Your task to perform on an android device: open sync settings in chrome Image 0: 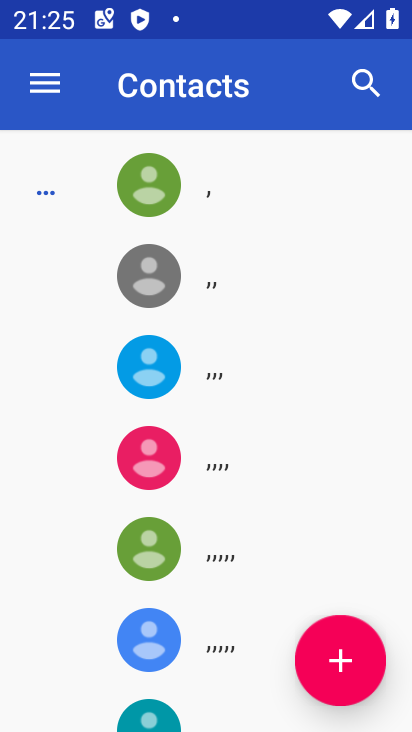
Step 0: press home button
Your task to perform on an android device: open sync settings in chrome Image 1: 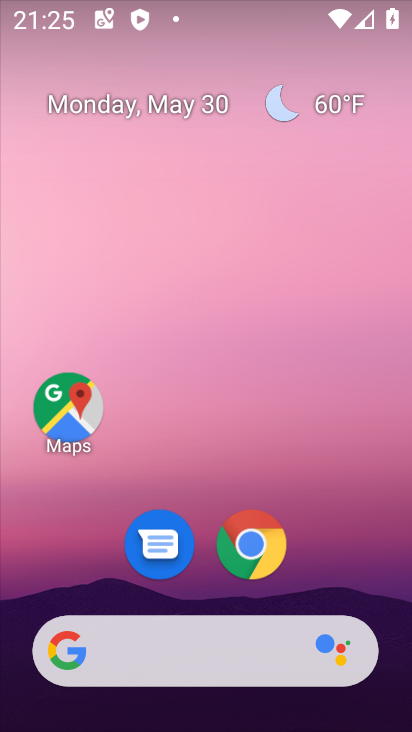
Step 1: click (253, 540)
Your task to perform on an android device: open sync settings in chrome Image 2: 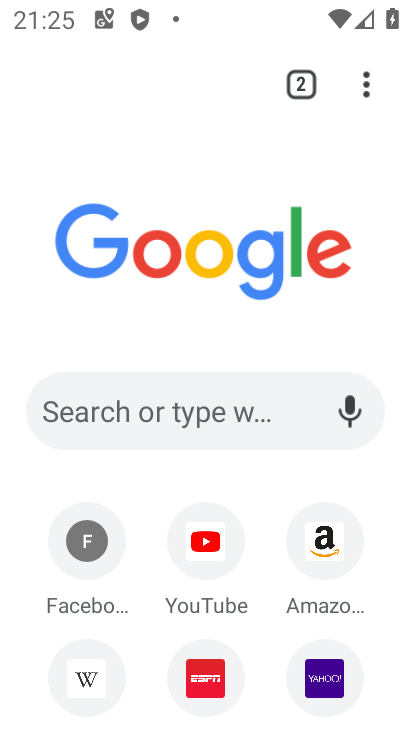
Step 2: click (367, 82)
Your task to perform on an android device: open sync settings in chrome Image 3: 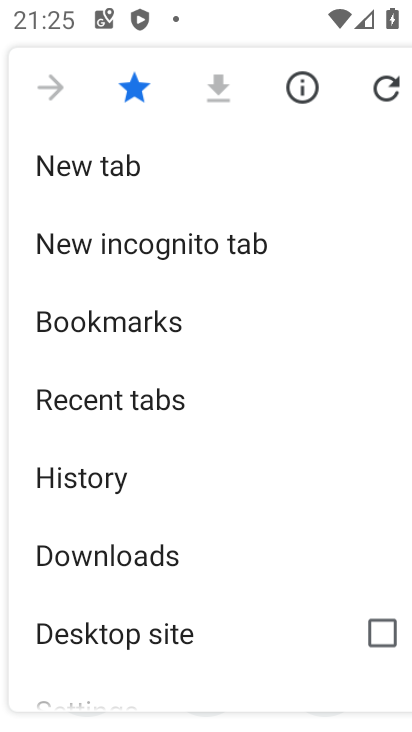
Step 3: drag from (190, 463) to (210, 372)
Your task to perform on an android device: open sync settings in chrome Image 4: 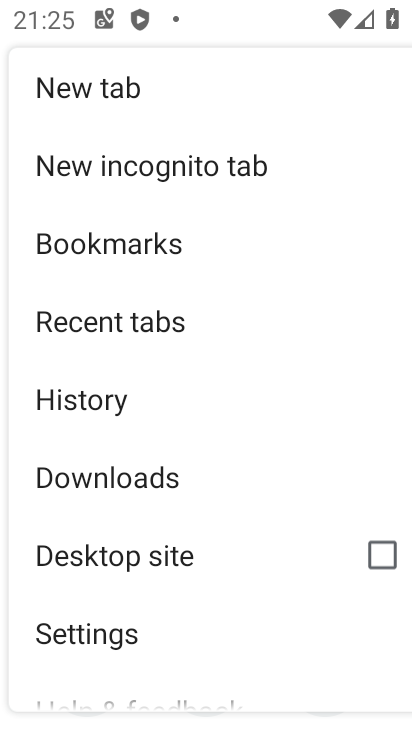
Step 4: drag from (160, 581) to (196, 474)
Your task to perform on an android device: open sync settings in chrome Image 5: 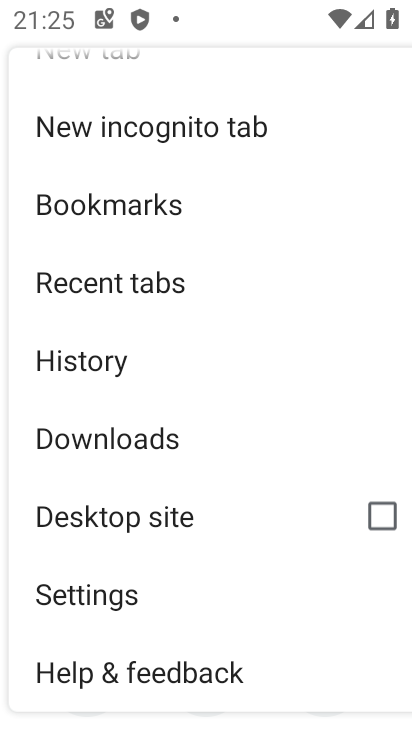
Step 5: click (96, 592)
Your task to perform on an android device: open sync settings in chrome Image 6: 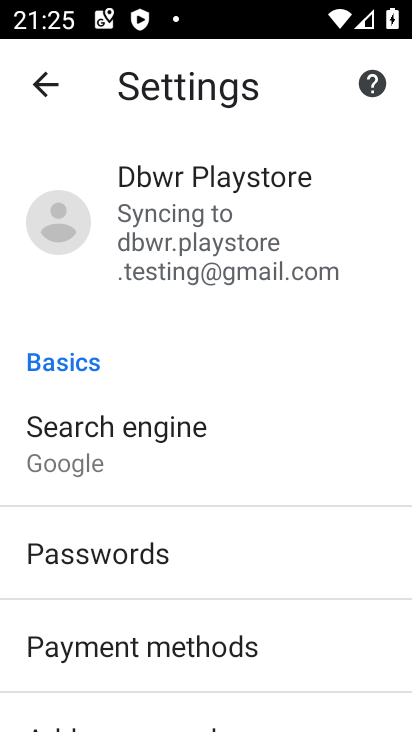
Step 6: drag from (158, 612) to (174, 531)
Your task to perform on an android device: open sync settings in chrome Image 7: 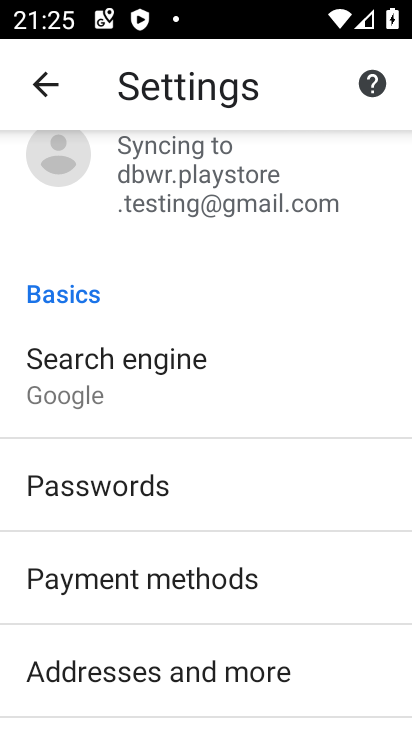
Step 7: drag from (145, 640) to (194, 544)
Your task to perform on an android device: open sync settings in chrome Image 8: 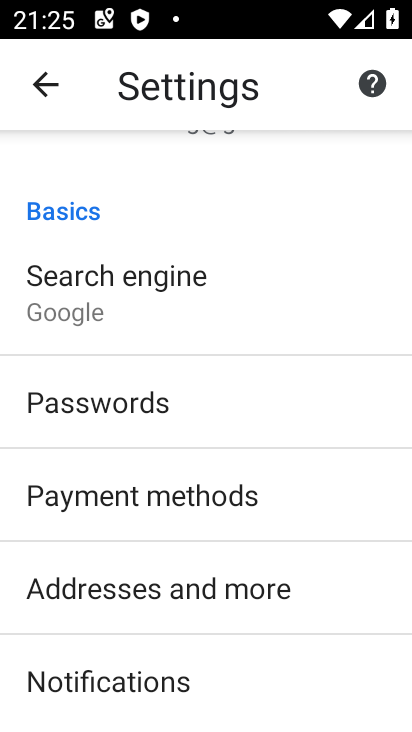
Step 8: drag from (160, 617) to (207, 532)
Your task to perform on an android device: open sync settings in chrome Image 9: 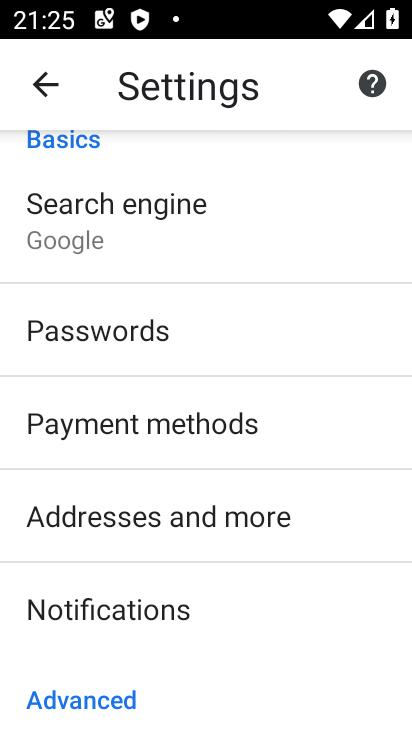
Step 9: drag from (205, 621) to (219, 530)
Your task to perform on an android device: open sync settings in chrome Image 10: 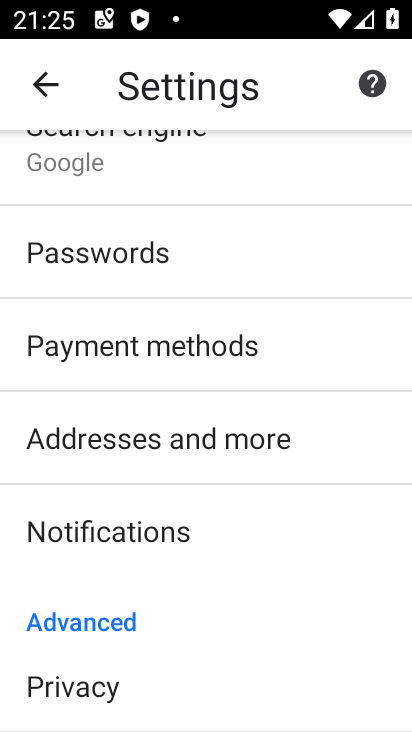
Step 10: drag from (170, 636) to (214, 549)
Your task to perform on an android device: open sync settings in chrome Image 11: 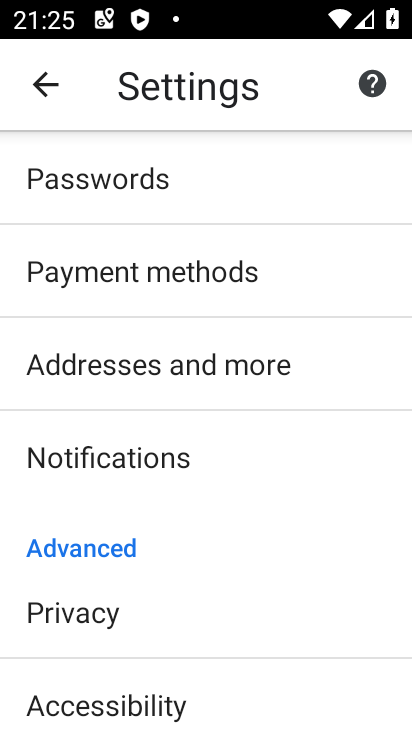
Step 11: drag from (200, 659) to (220, 566)
Your task to perform on an android device: open sync settings in chrome Image 12: 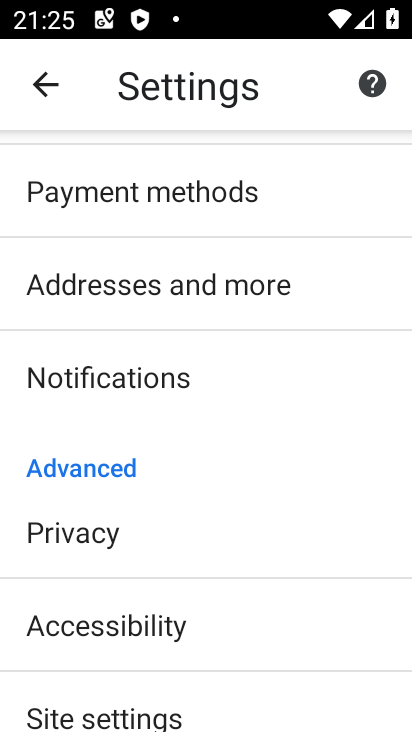
Step 12: drag from (225, 659) to (275, 561)
Your task to perform on an android device: open sync settings in chrome Image 13: 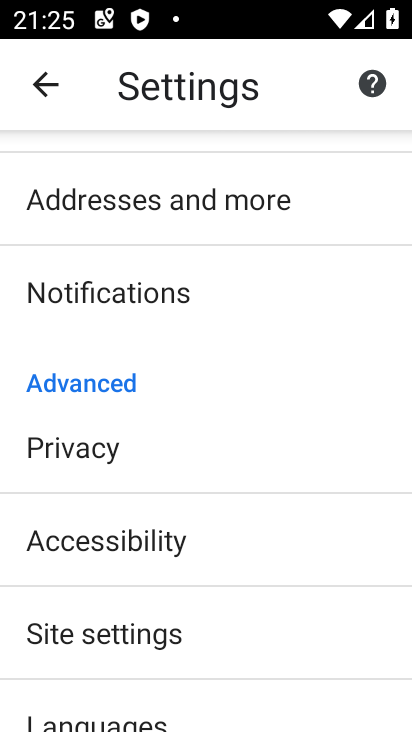
Step 13: click (163, 636)
Your task to perform on an android device: open sync settings in chrome Image 14: 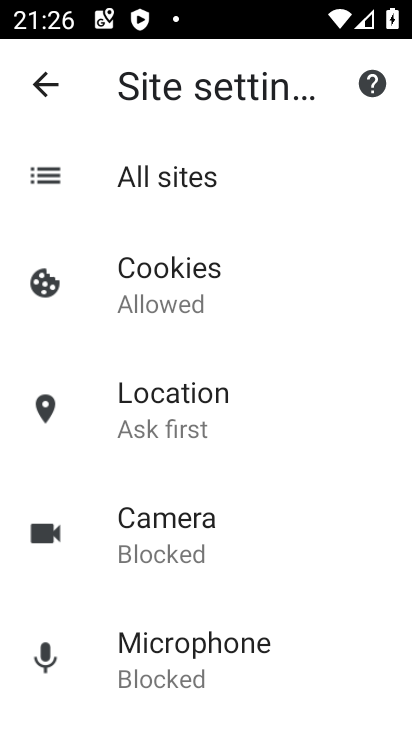
Step 14: drag from (219, 586) to (250, 504)
Your task to perform on an android device: open sync settings in chrome Image 15: 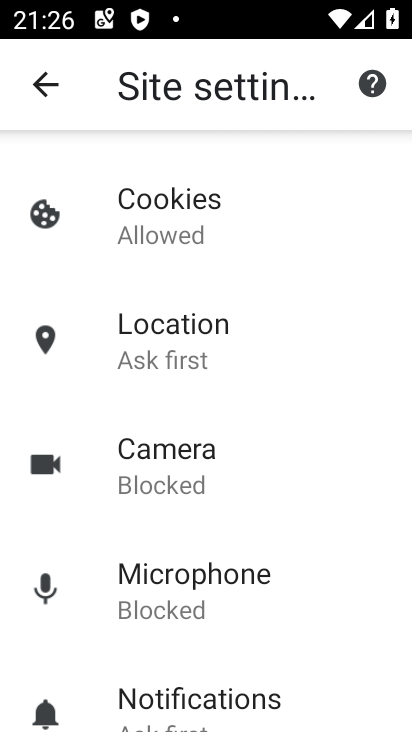
Step 15: drag from (206, 622) to (241, 524)
Your task to perform on an android device: open sync settings in chrome Image 16: 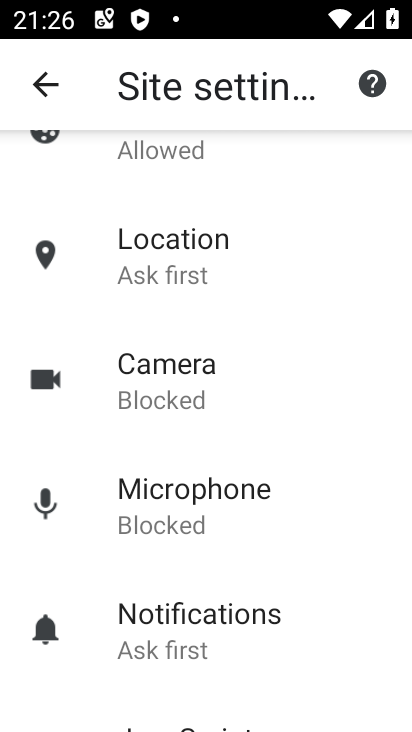
Step 16: drag from (228, 654) to (243, 546)
Your task to perform on an android device: open sync settings in chrome Image 17: 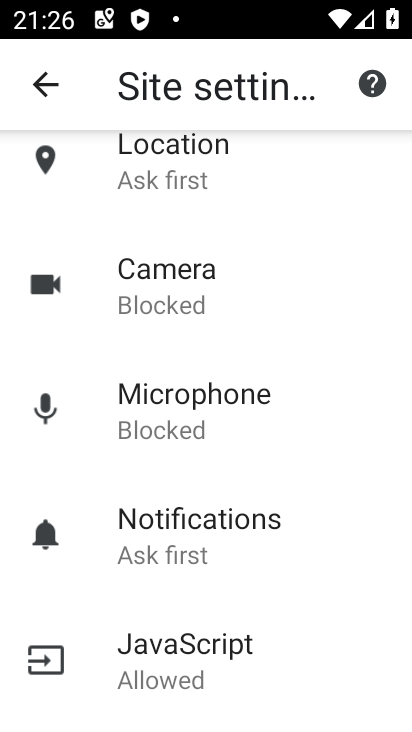
Step 17: drag from (268, 691) to (287, 565)
Your task to perform on an android device: open sync settings in chrome Image 18: 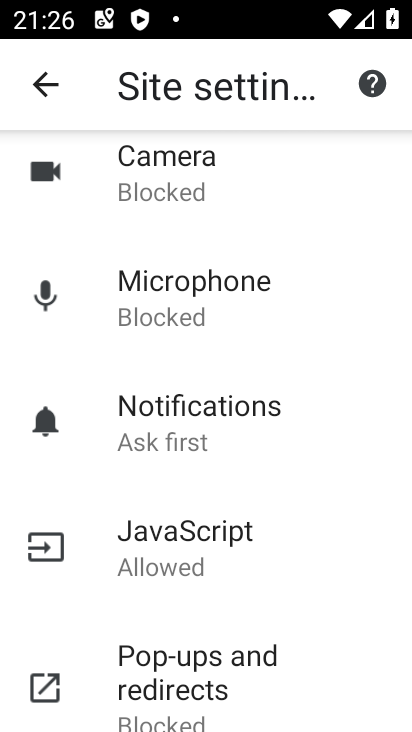
Step 18: drag from (262, 707) to (278, 558)
Your task to perform on an android device: open sync settings in chrome Image 19: 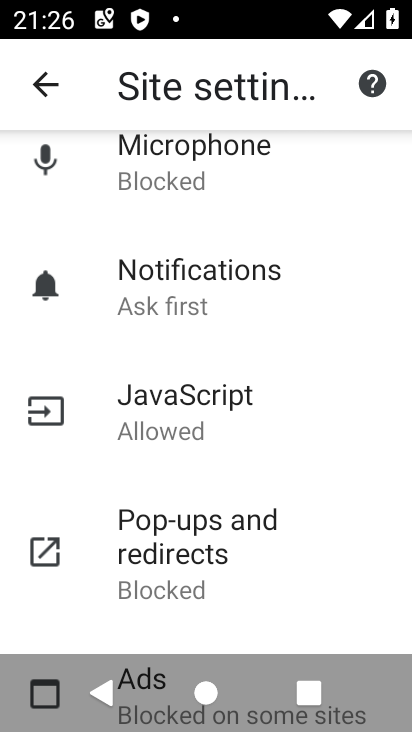
Step 19: drag from (228, 613) to (272, 470)
Your task to perform on an android device: open sync settings in chrome Image 20: 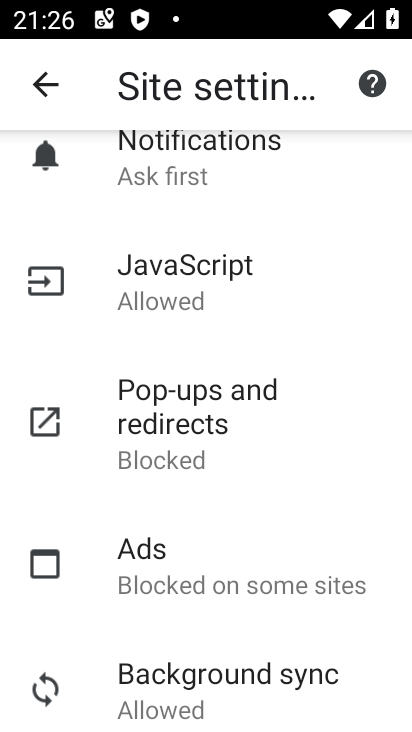
Step 20: drag from (211, 609) to (260, 448)
Your task to perform on an android device: open sync settings in chrome Image 21: 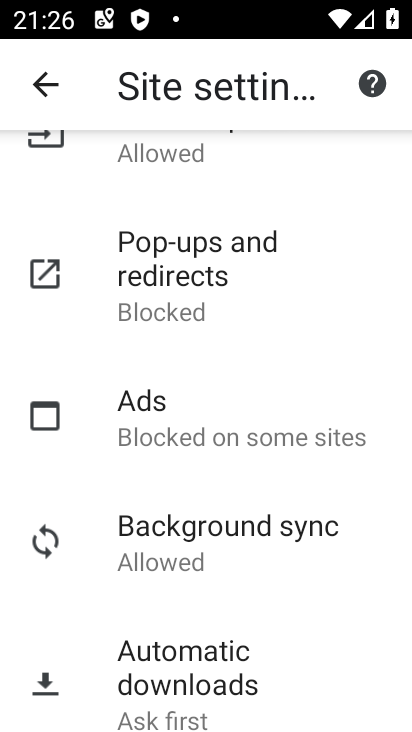
Step 21: click (254, 517)
Your task to perform on an android device: open sync settings in chrome Image 22: 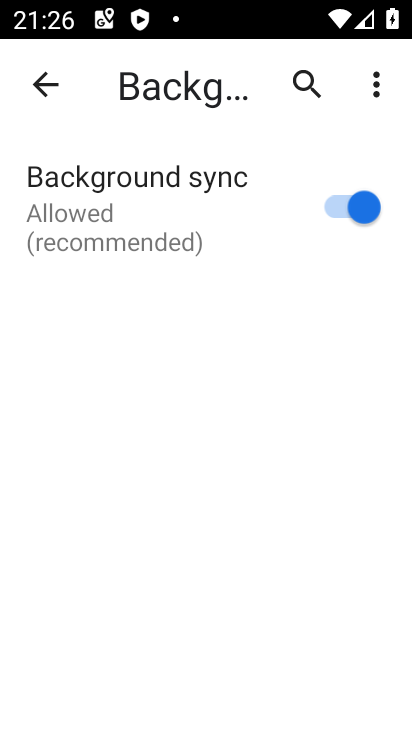
Step 22: task complete